Your task to perform on an android device: turn on improve location accuracy Image 0: 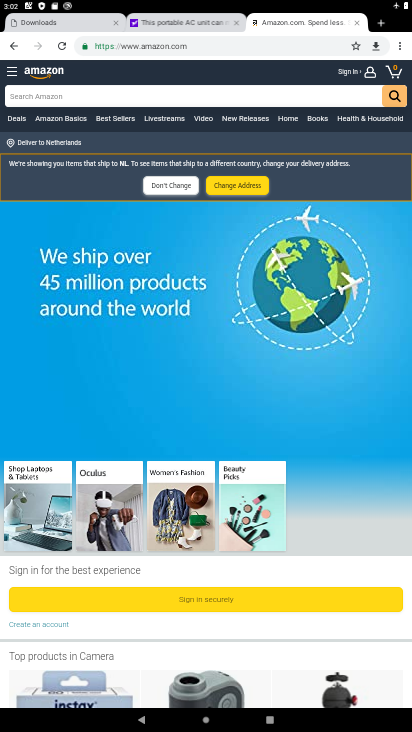
Step 0: press home button
Your task to perform on an android device: turn on improve location accuracy Image 1: 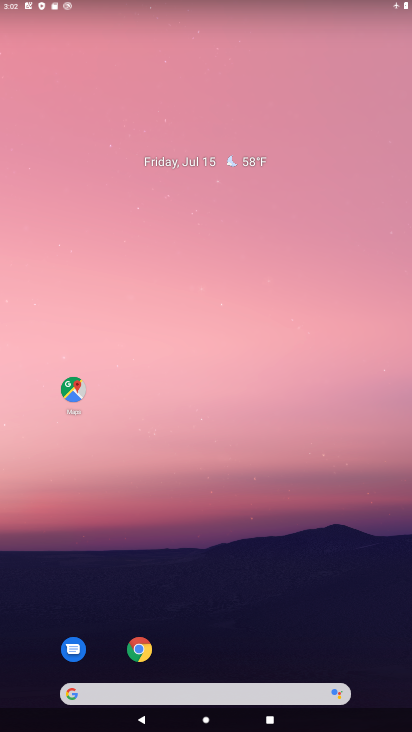
Step 1: drag from (242, 722) to (262, 205)
Your task to perform on an android device: turn on improve location accuracy Image 2: 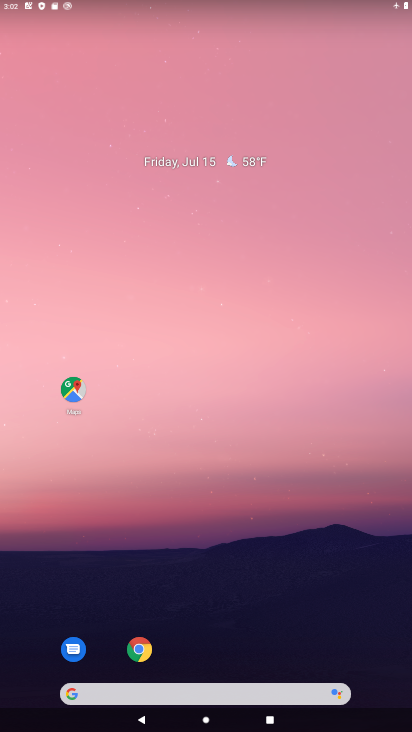
Step 2: drag from (232, 699) to (217, 12)
Your task to perform on an android device: turn on improve location accuracy Image 3: 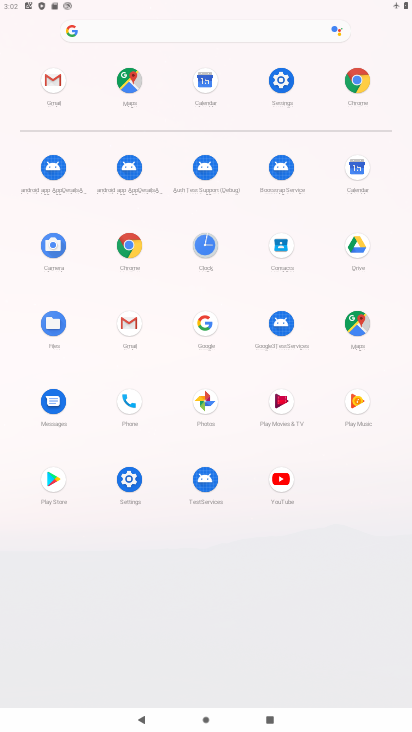
Step 3: click (281, 83)
Your task to perform on an android device: turn on improve location accuracy Image 4: 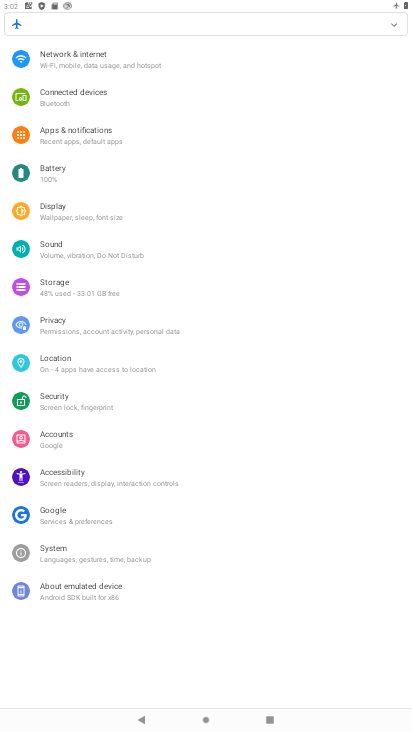
Step 4: click (68, 360)
Your task to perform on an android device: turn on improve location accuracy Image 5: 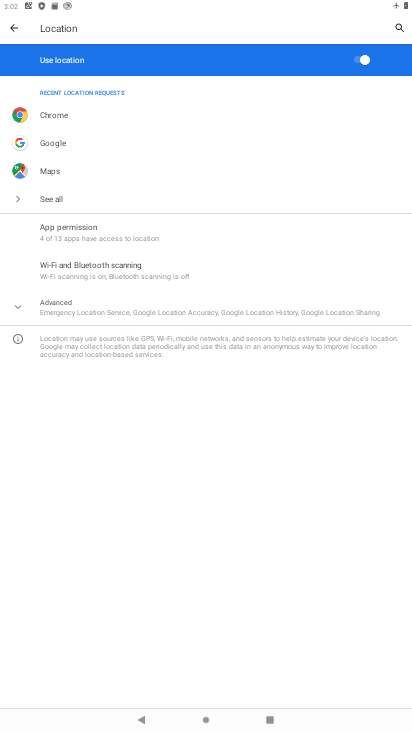
Step 5: click (142, 308)
Your task to perform on an android device: turn on improve location accuracy Image 6: 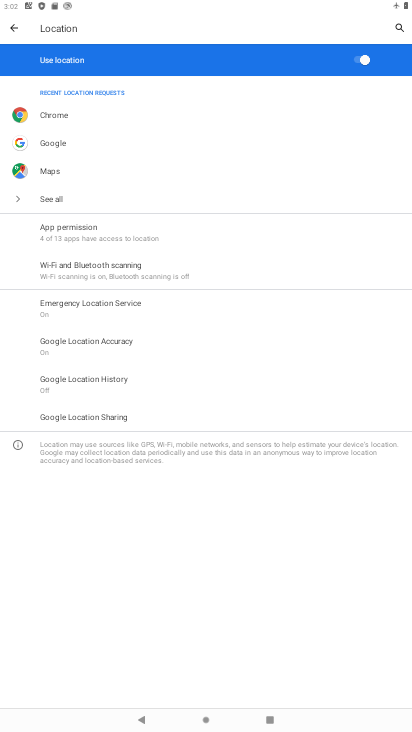
Step 6: click (113, 342)
Your task to perform on an android device: turn on improve location accuracy Image 7: 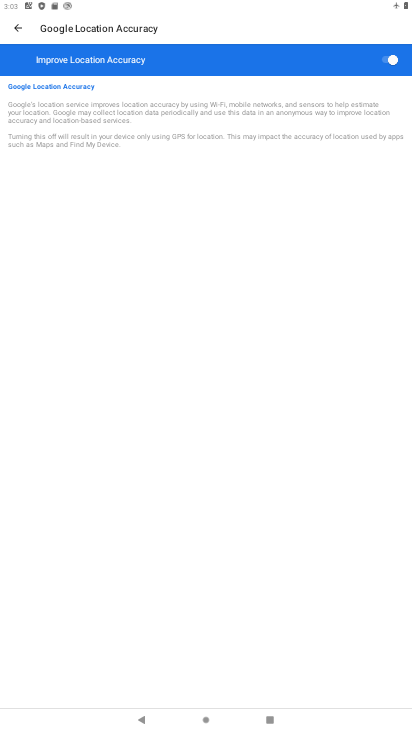
Step 7: task complete